Your task to perform on an android device: Go to Android settings Image 0: 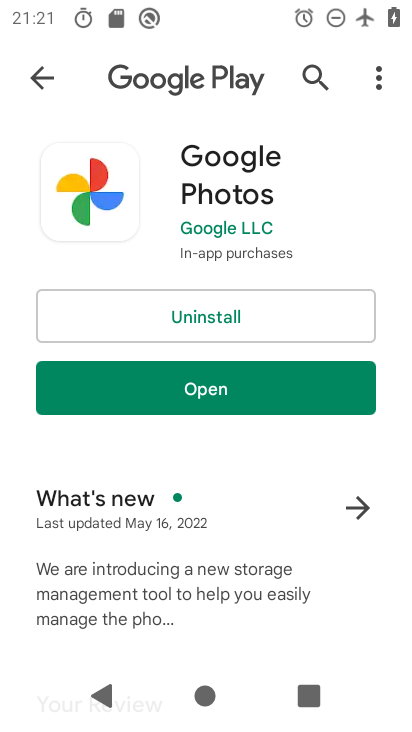
Step 0: press home button
Your task to perform on an android device: Go to Android settings Image 1: 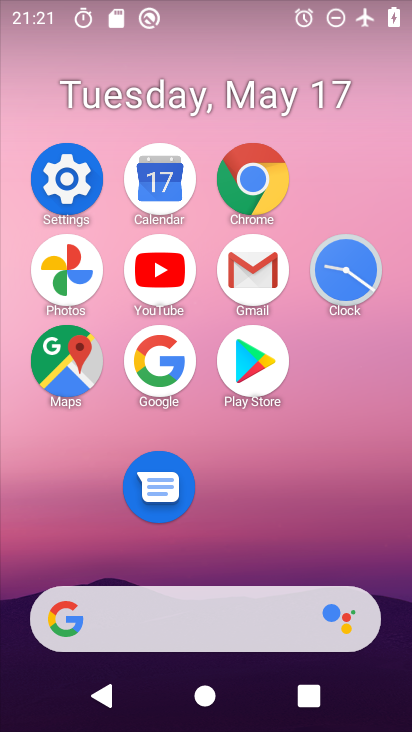
Step 1: click (87, 177)
Your task to perform on an android device: Go to Android settings Image 2: 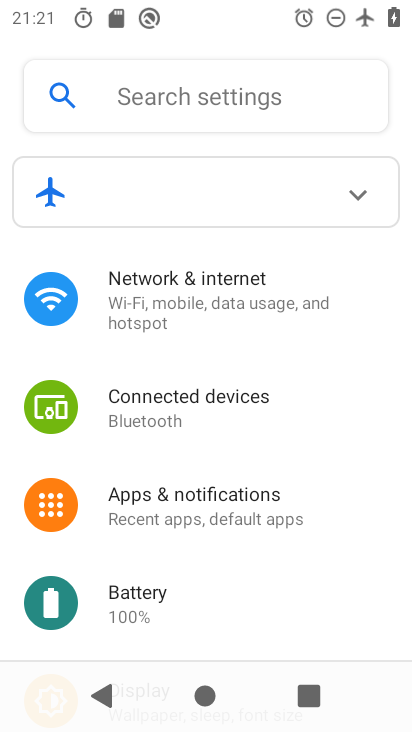
Step 2: task complete